Your task to perform on an android device: Open Wikipedia Image 0: 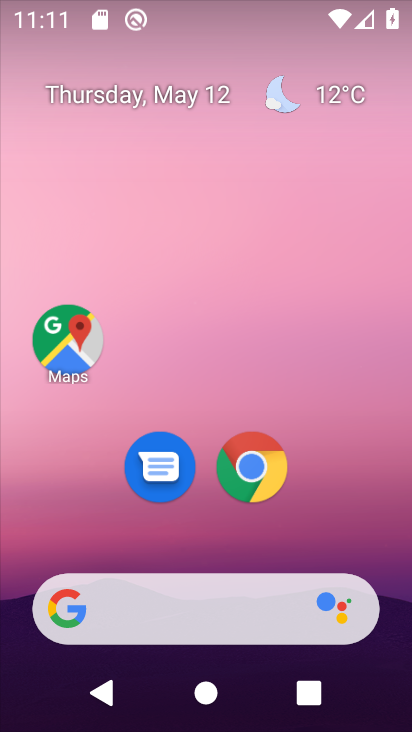
Step 0: click (256, 463)
Your task to perform on an android device: Open Wikipedia Image 1: 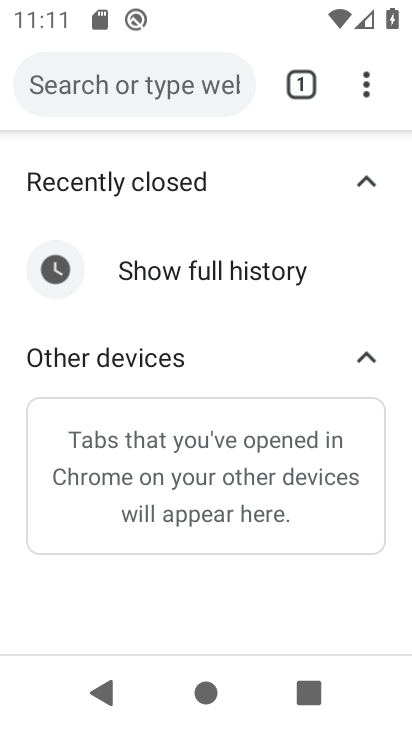
Step 1: click (297, 80)
Your task to perform on an android device: Open Wikipedia Image 2: 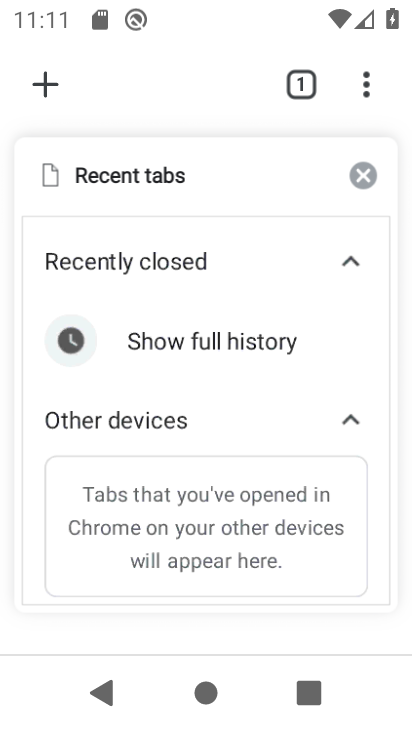
Step 2: click (44, 77)
Your task to perform on an android device: Open Wikipedia Image 3: 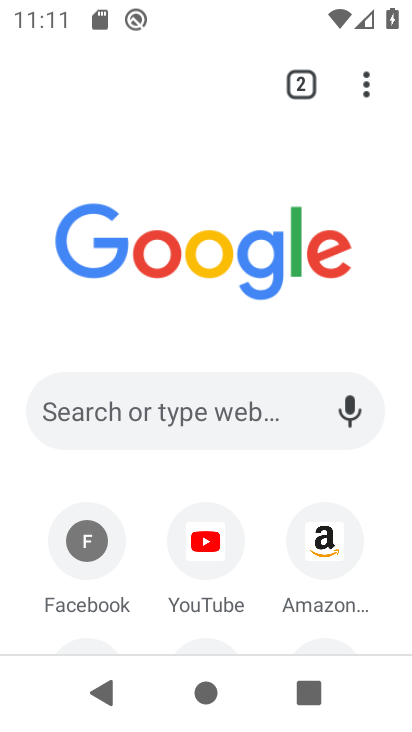
Step 3: drag from (269, 537) to (242, 268)
Your task to perform on an android device: Open Wikipedia Image 4: 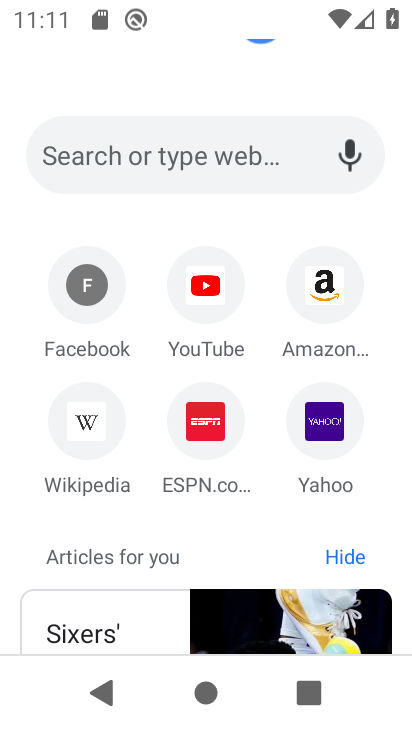
Step 4: click (87, 415)
Your task to perform on an android device: Open Wikipedia Image 5: 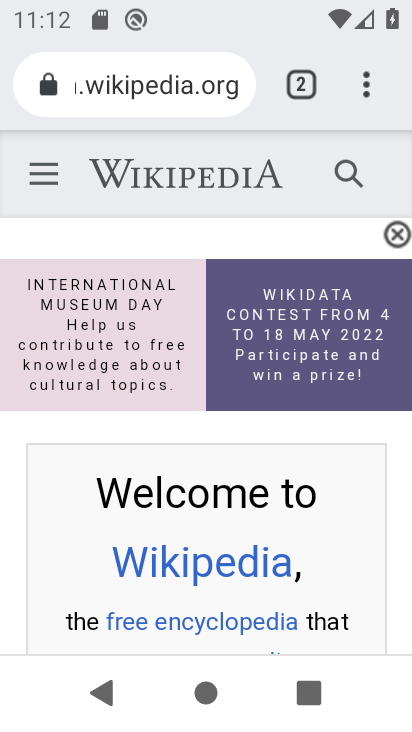
Step 5: task complete